Your task to perform on an android device: turn on airplane mode Image 0: 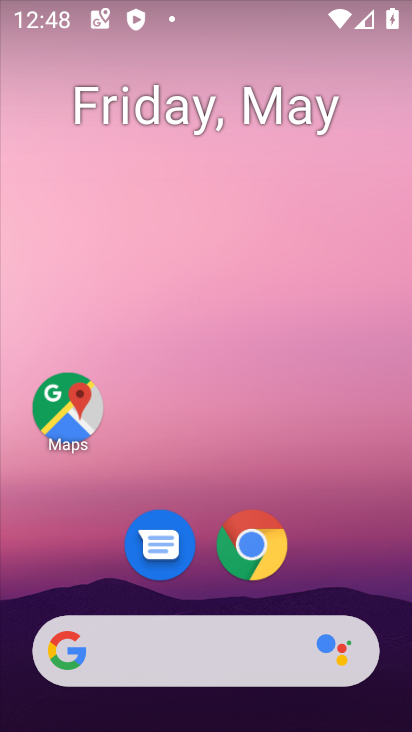
Step 0: drag from (332, 543) to (300, 31)
Your task to perform on an android device: turn on airplane mode Image 1: 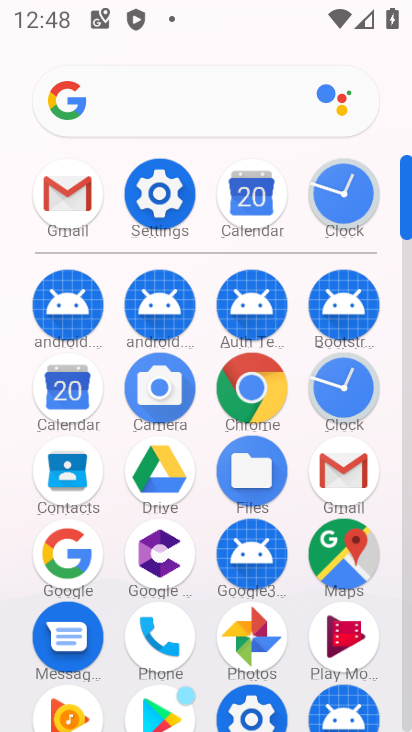
Step 1: click (144, 201)
Your task to perform on an android device: turn on airplane mode Image 2: 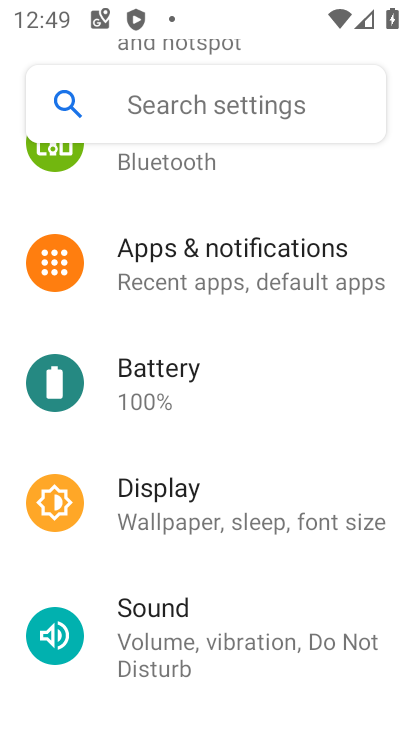
Step 2: drag from (217, 207) to (142, 465)
Your task to perform on an android device: turn on airplane mode Image 3: 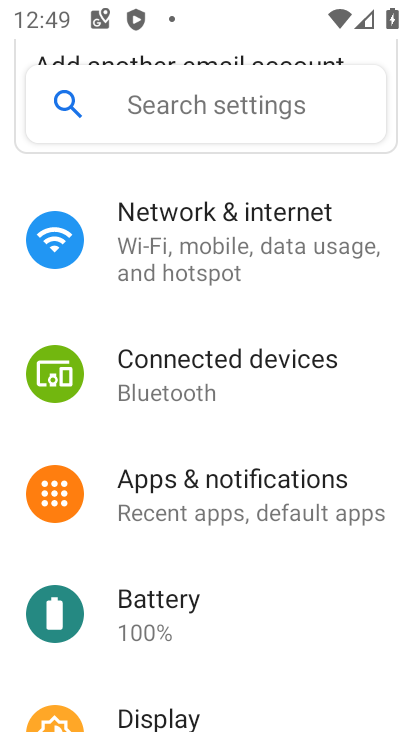
Step 3: click (215, 258)
Your task to perform on an android device: turn on airplane mode Image 4: 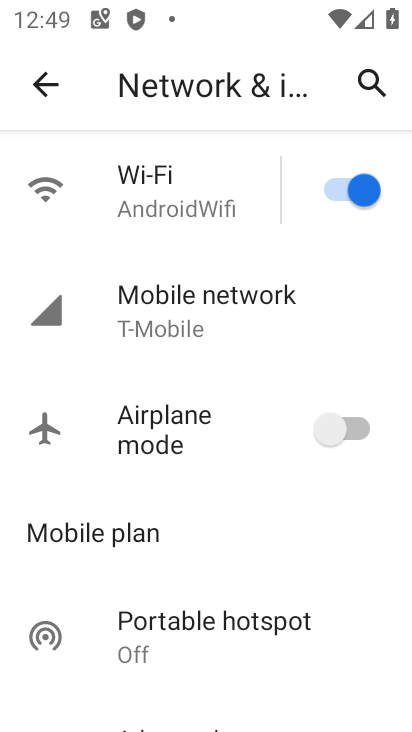
Step 4: click (336, 434)
Your task to perform on an android device: turn on airplane mode Image 5: 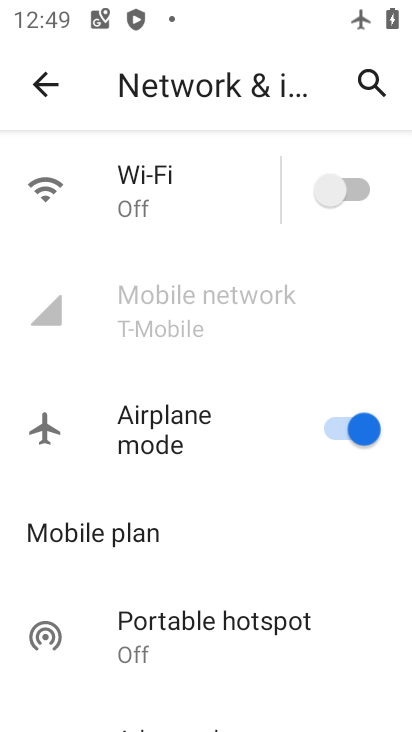
Step 5: task complete